Your task to perform on an android device: set the timer Image 0: 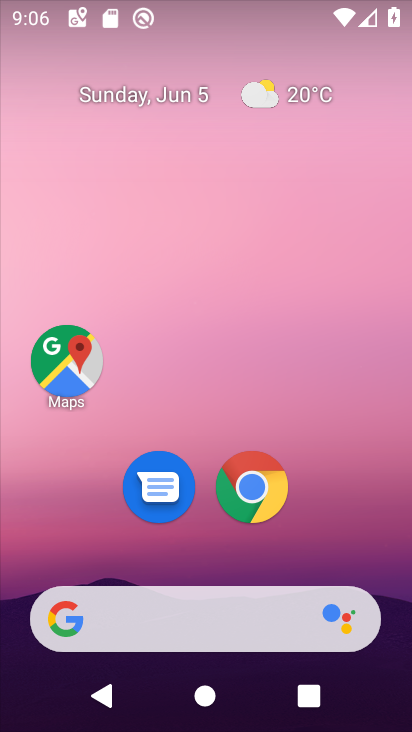
Step 0: drag from (309, 575) to (307, 175)
Your task to perform on an android device: set the timer Image 1: 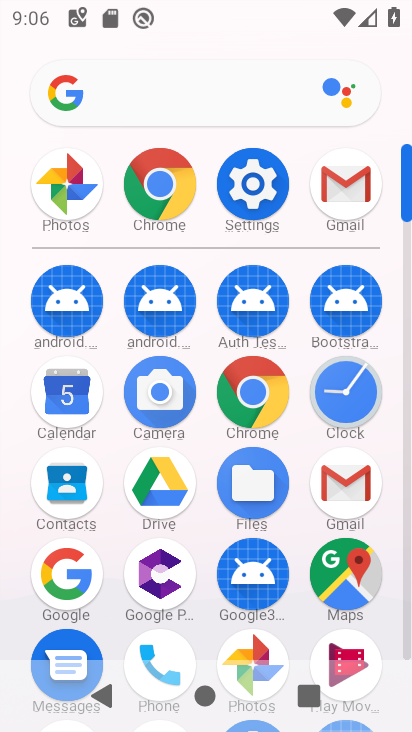
Step 1: click (354, 388)
Your task to perform on an android device: set the timer Image 2: 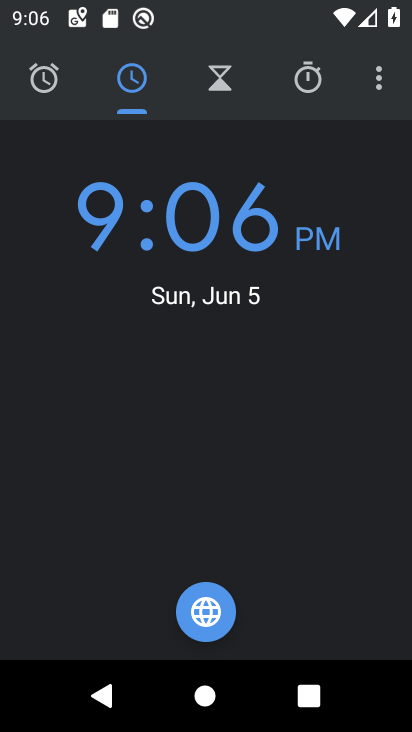
Step 2: click (233, 68)
Your task to perform on an android device: set the timer Image 3: 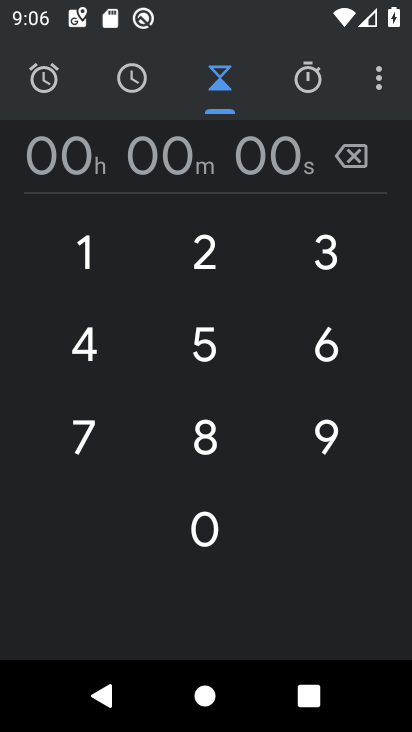
Step 3: click (196, 141)
Your task to perform on an android device: set the timer Image 4: 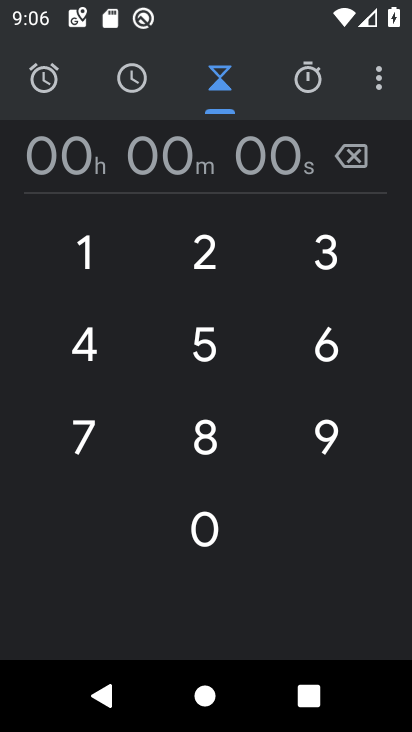
Step 4: type "09876"
Your task to perform on an android device: set the timer Image 5: 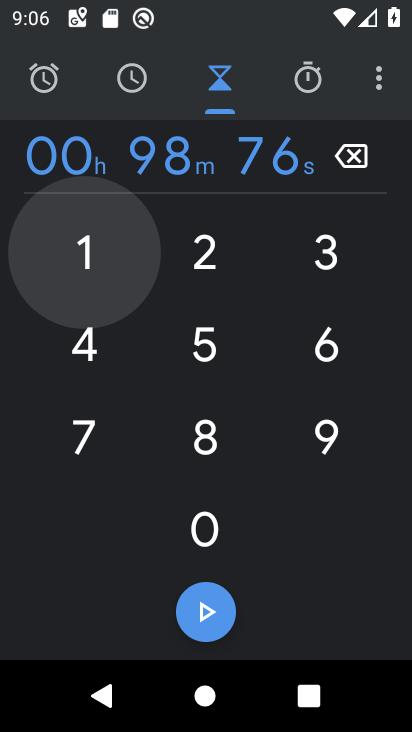
Step 5: click (206, 605)
Your task to perform on an android device: set the timer Image 6: 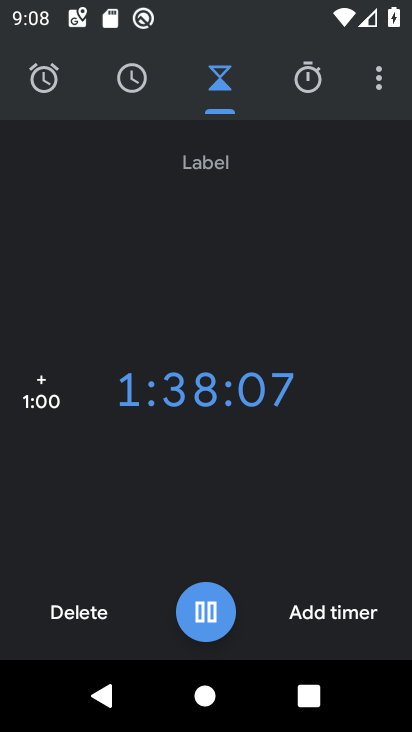
Step 6: task complete